Your task to perform on an android device: What's the weather today? Image 0: 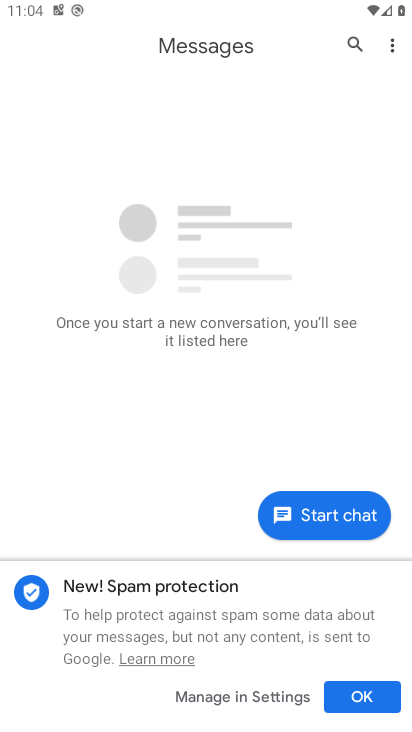
Step 0: press home button
Your task to perform on an android device: What's the weather today? Image 1: 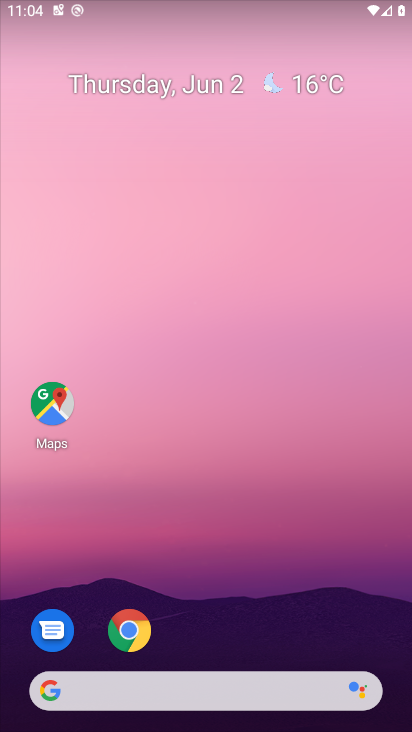
Step 1: click (304, 83)
Your task to perform on an android device: What's the weather today? Image 2: 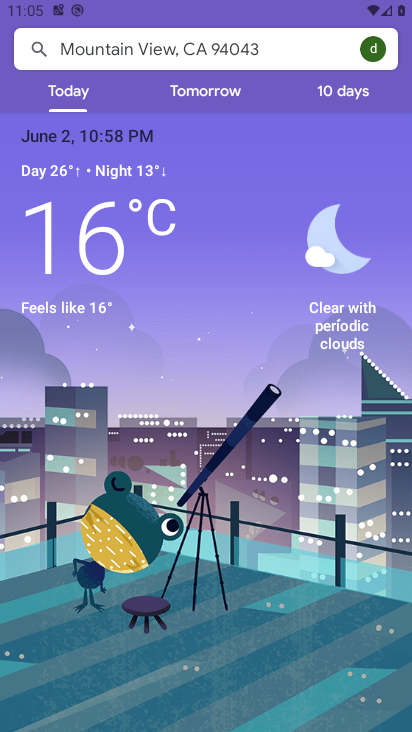
Step 2: task complete